Your task to perform on an android device: check the backup settings in the google photos Image 0: 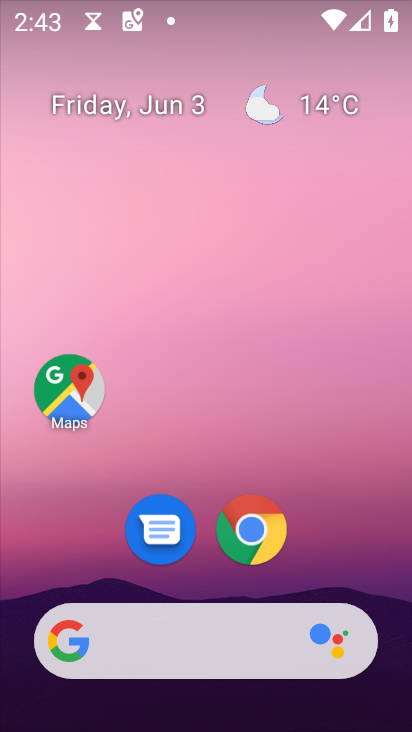
Step 0: drag from (267, 657) to (300, 138)
Your task to perform on an android device: check the backup settings in the google photos Image 1: 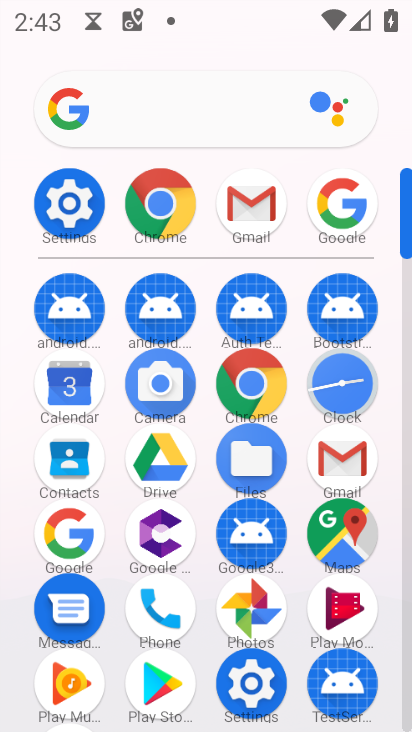
Step 1: click (244, 610)
Your task to perform on an android device: check the backup settings in the google photos Image 2: 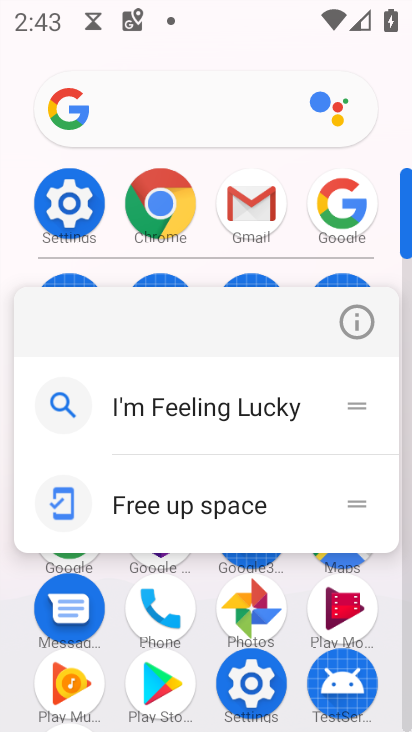
Step 2: drag from (239, 613) to (305, 596)
Your task to perform on an android device: check the backup settings in the google photos Image 3: 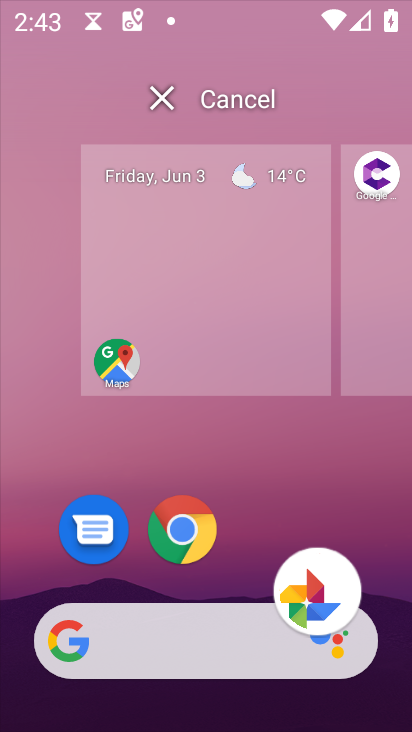
Step 3: click (268, 595)
Your task to perform on an android device: check the backup settings in the google photos Image 4: 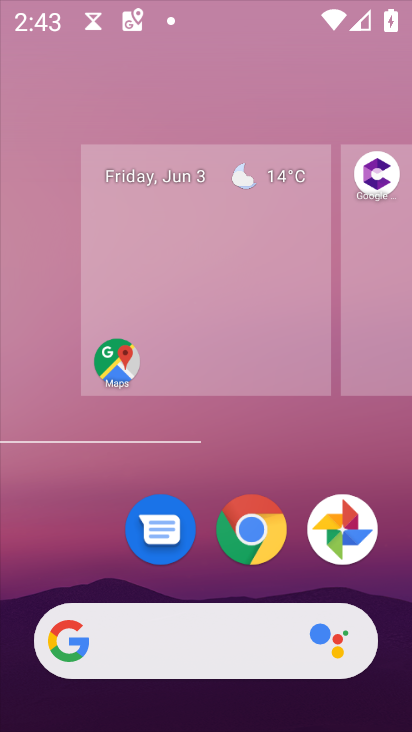
Step 4: click (255, 596)
Your task to perform on an android device: check the backup settings in the google photos Image 5: 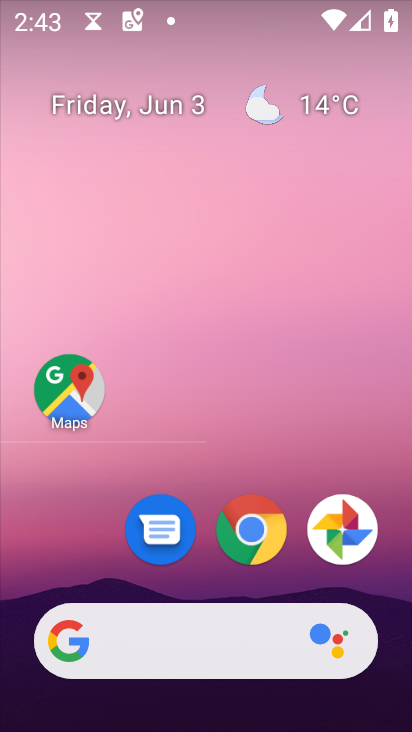
Step 5: drag from (289, 677) to (215, 162)
Your task to perform on an android device: check the backup settings in the google photos Image 6: 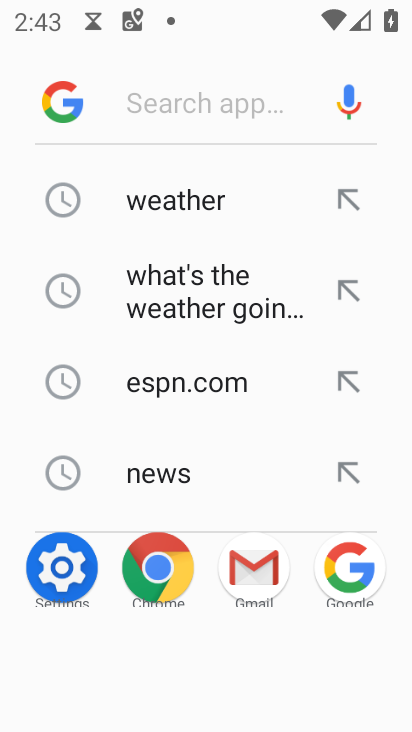
Step 6: drag from (251, 587) to (174, 249)
Your task to perform on an android device: check the backup settings in the google photos Image 7: 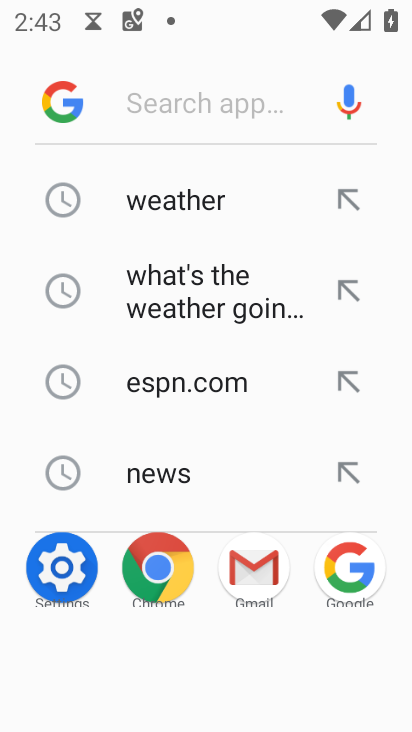
Step 7: press back button
Your task to perform on an android device: check the backup settings in the google photos Image 8: 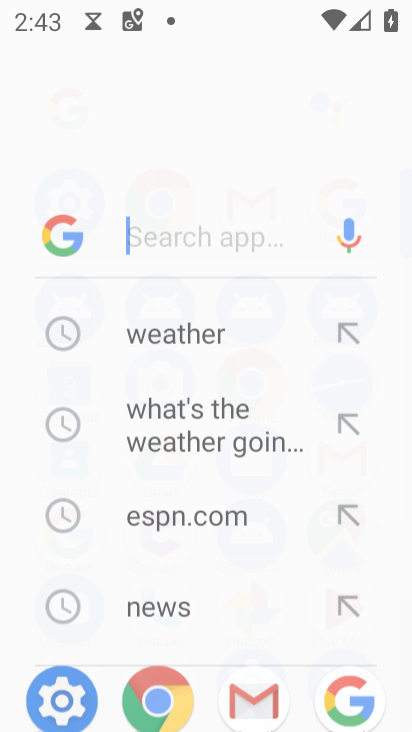
Step 8: press back button
Your task to perform on an android device: check the backup settings in the google photos Image 9: 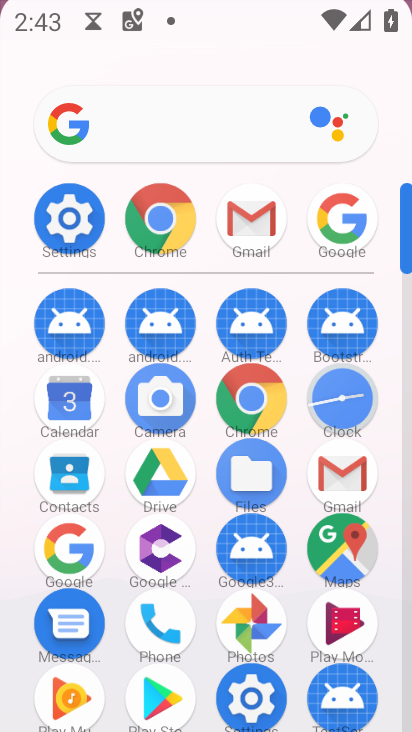
Step 9: press back button
Your task to perform on an android device: check the backup settings in the google photos Image 10: 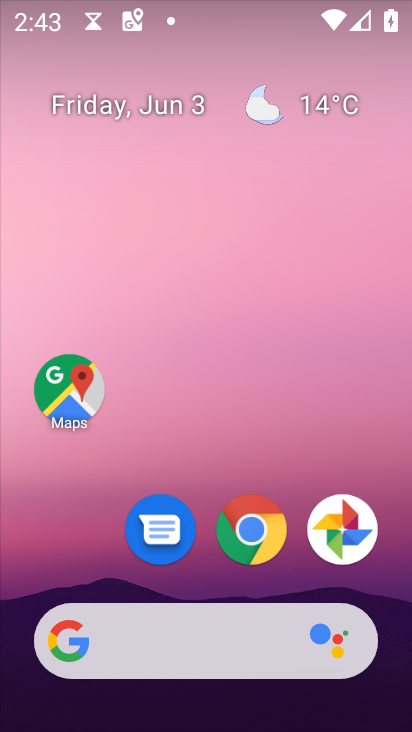
Step 10: drag from (291, 681) to (239, 231)
Your task to perform on an android device: check the backup settings in the google photos Image 11: 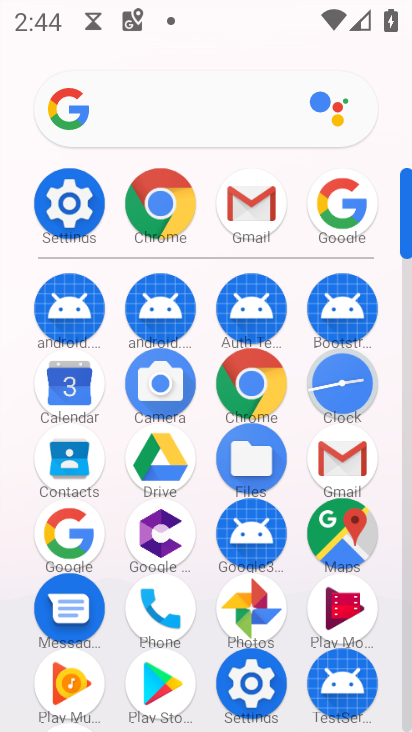
Step 11: click (253, 618)
Your task to perform on an android device: check the backup settings in the google photos Image 12: 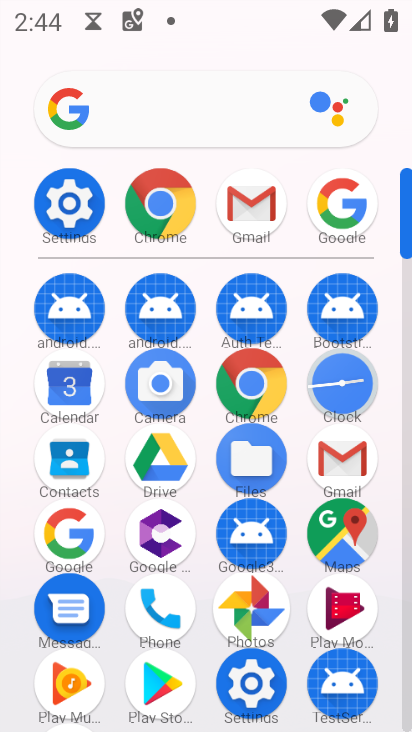
Step 12: click (250, 614)
Your task to perform on an android device: check the backup settings in the google photos Image 13: 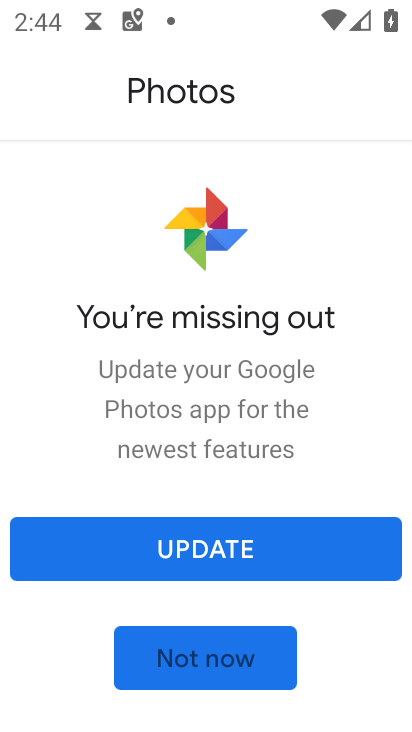
Step 13: click (218, 654)
Your task to perform on an android device: check the backup settings in the google photos Image 14: 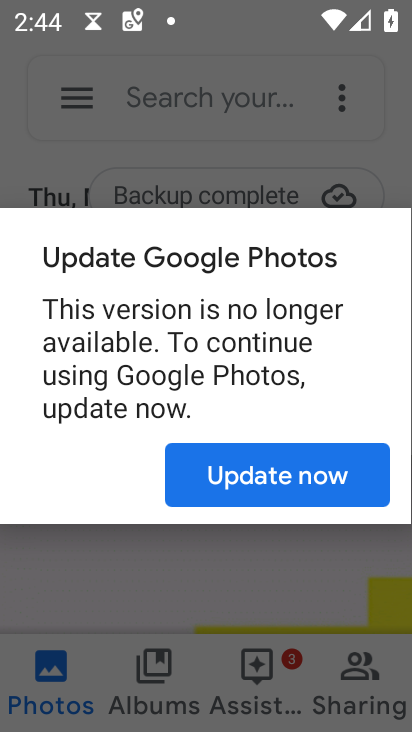
Step 14: click (268, 457)
Your task to perform on an android device: check the backup settings in the google photos Image 15: 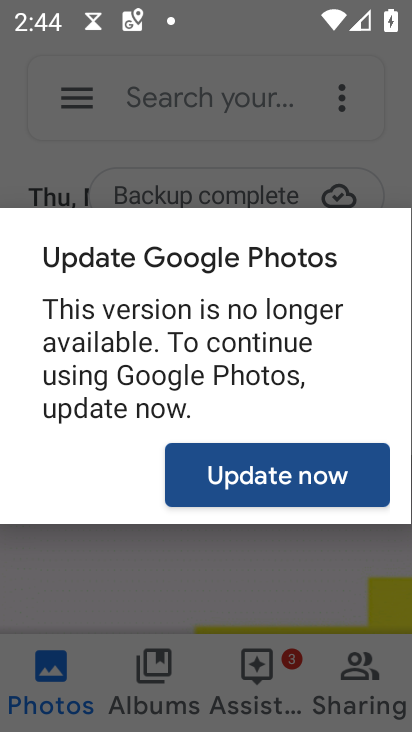
Step 15: click (268, 457)
Your task to perform on an android device: check the backup settings in the google photos Image 16: 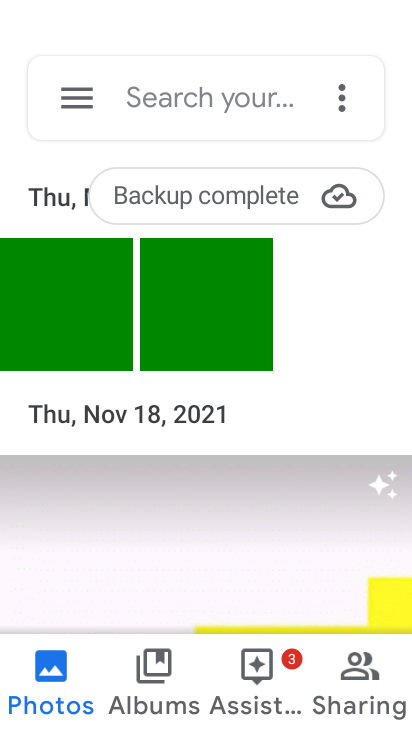
Step 16: click (260, 457)
Your task to perform on an android device: check the backup settings in the google photos Image 17: 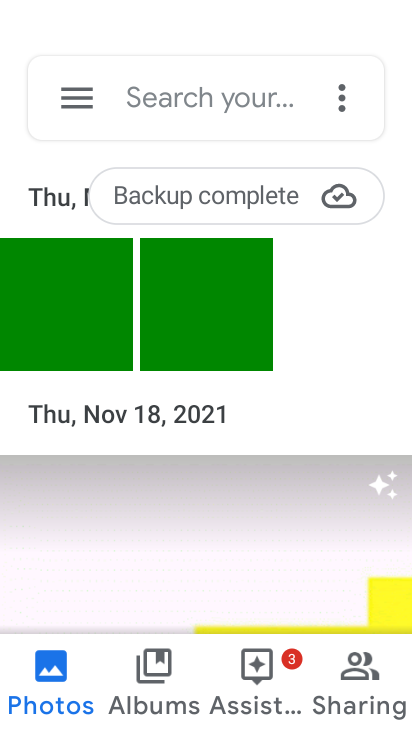
Step 17: click (259, 457)
Your task to perform on an android device: check the backup settings in the google photos Image 18: 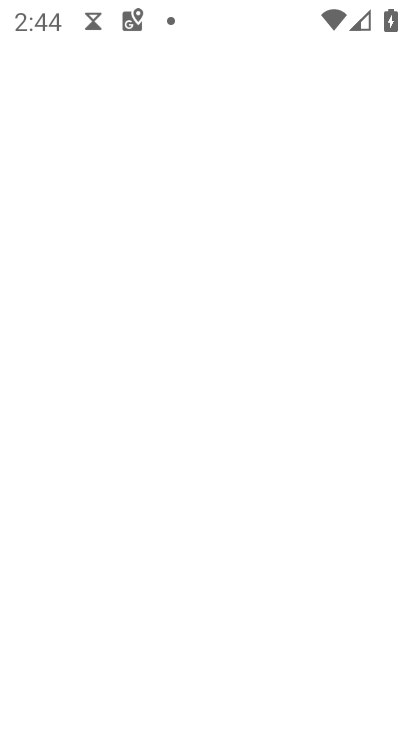
Step 18: task complete